Your task to perform on an android device: change notifications settings Image 0: 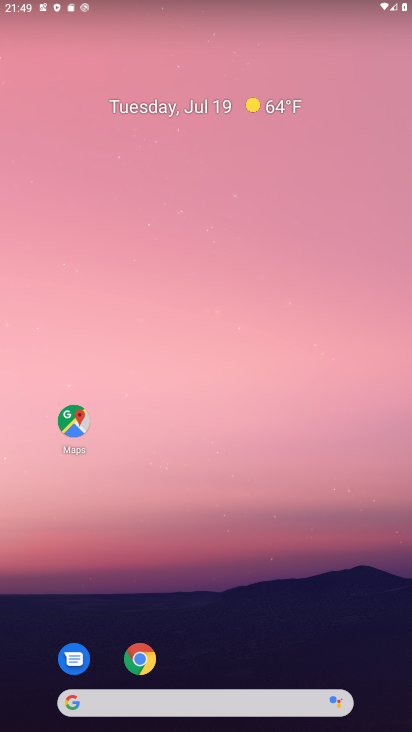
Step 0: drag from (210, 674) to (258, 143)
Your task to perform on an android device: change notifications settings Image 1: 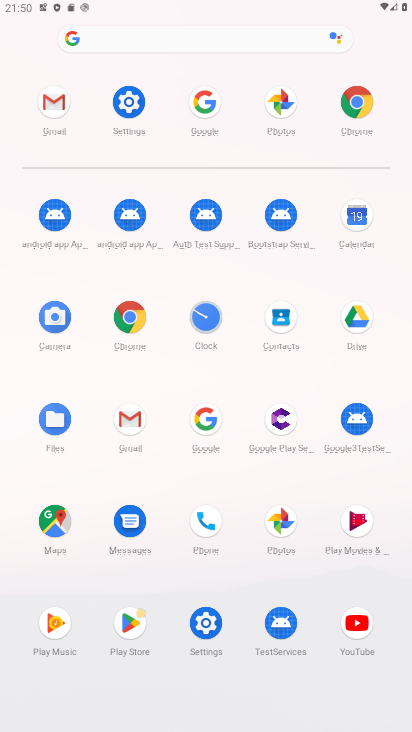
Step 1: click (127, 84)
Your task to perform on an android device: change notifications settings Image 2: 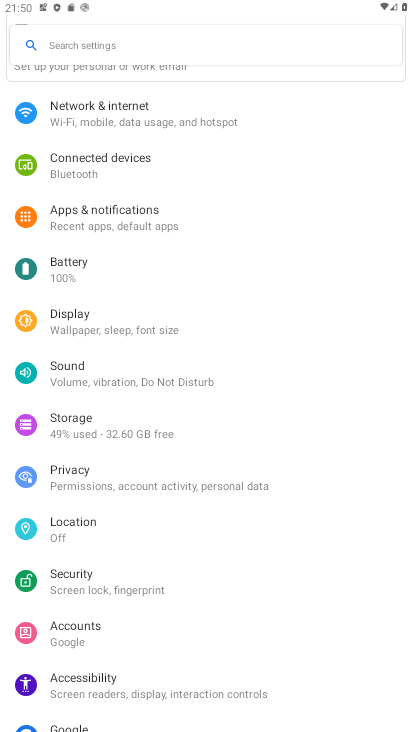
Step 2: click (120, 214)
Your task to perform on an android device: change notifications settings Image 3: 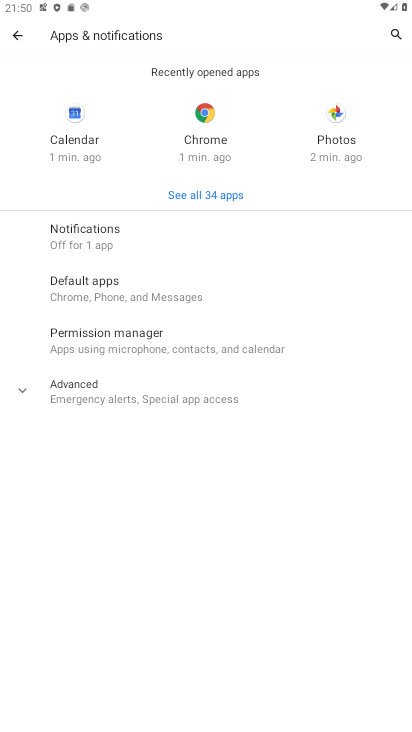
Step 3: click (146, 222)
Your task to perform on an android device: change notifications settings Image 4: 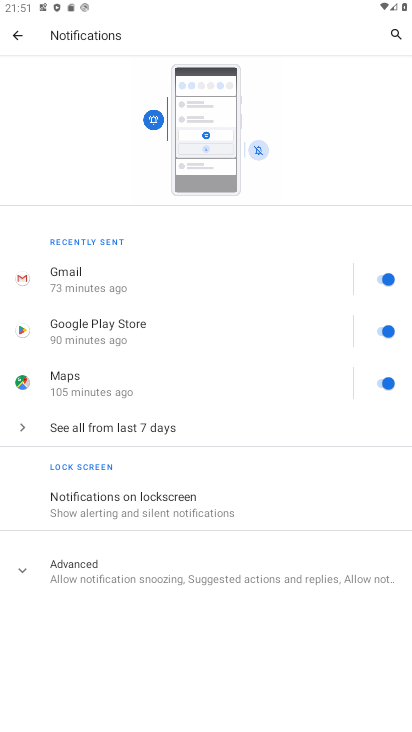
Step 4: click (147, 571)
Your task to perform on an android device: change notifications settings Image 5: 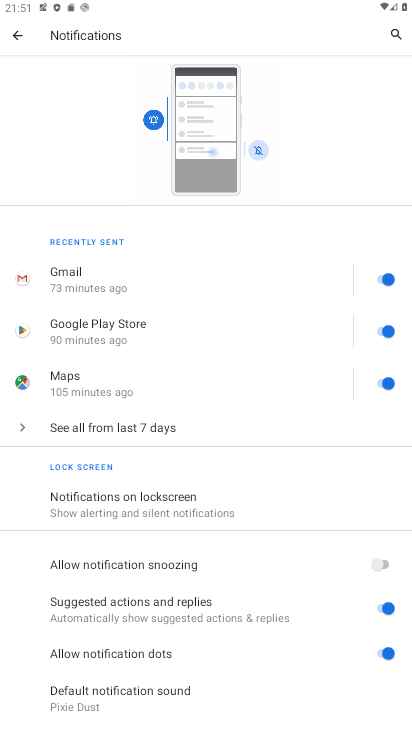
Step 5: task complete